Your task to perform on an android device: Search for Italian restaurants on Maps Image 0: 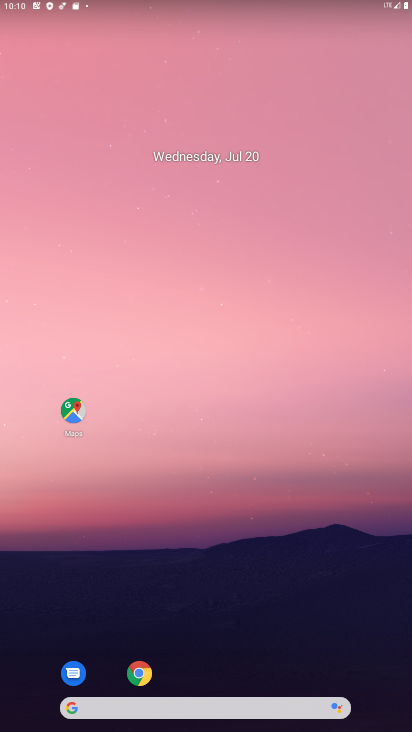
Step 0: click (74, 412)
Your task to perform on an android device: Search for Italian restaurants on Maps Image 1: 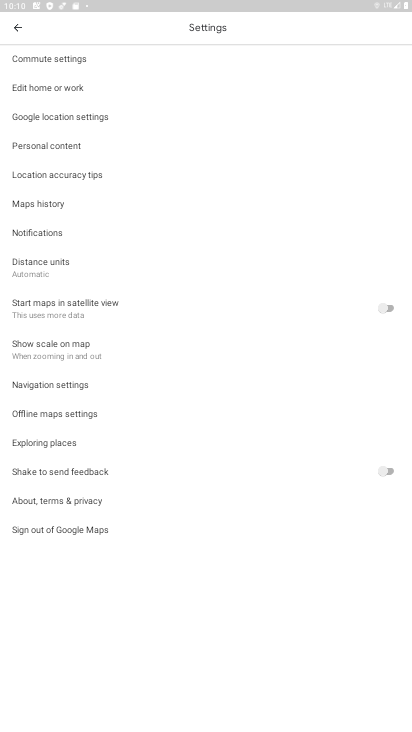
Step 1: press back button
Your task to perform on an android device: Search for Italian restaurants on Maps Image 2: 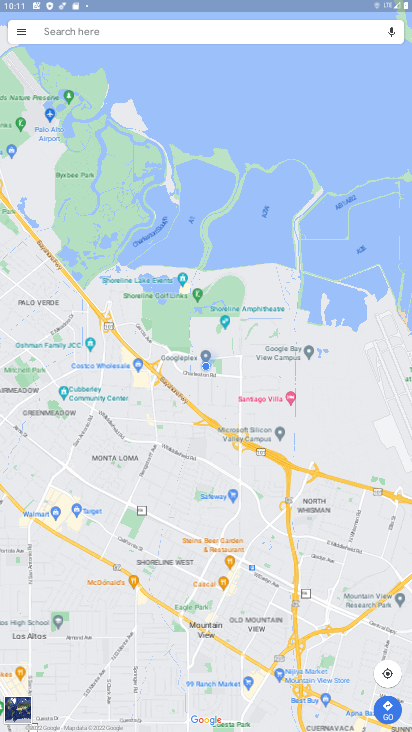
Step 2: click (278, 30)
Your task to perform on an android device: Search for Italian restaurants on Maps Image 3: 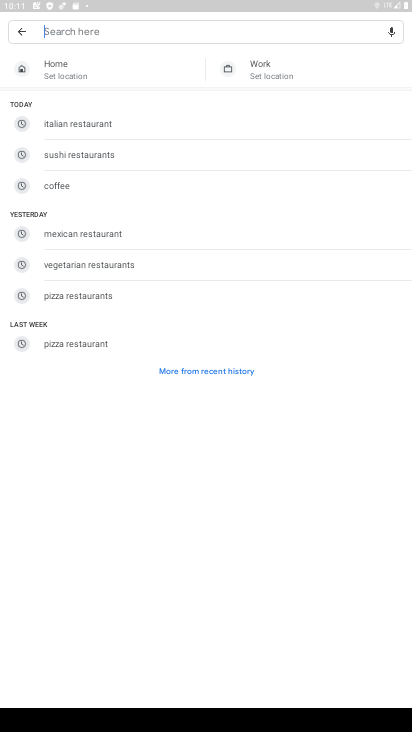
Step 3: type "Italian restaurants"
Your task to perform on an android device: Search for Italian restaurants on Maps Image 4: 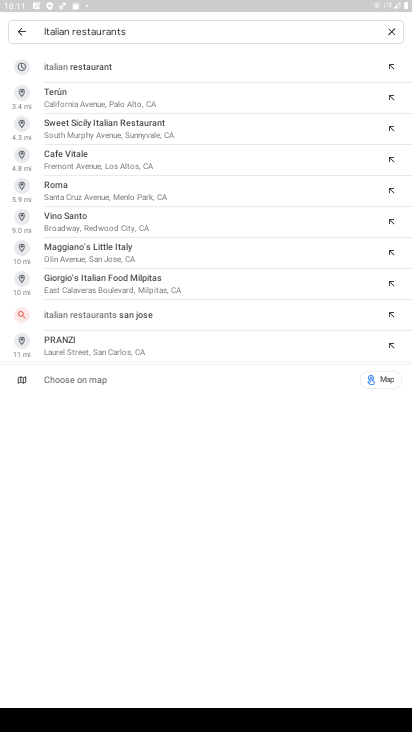
Step 4: click (106, 68)
Your task to perform on an android device: Search for Italian restaurants on Maps Image 5: 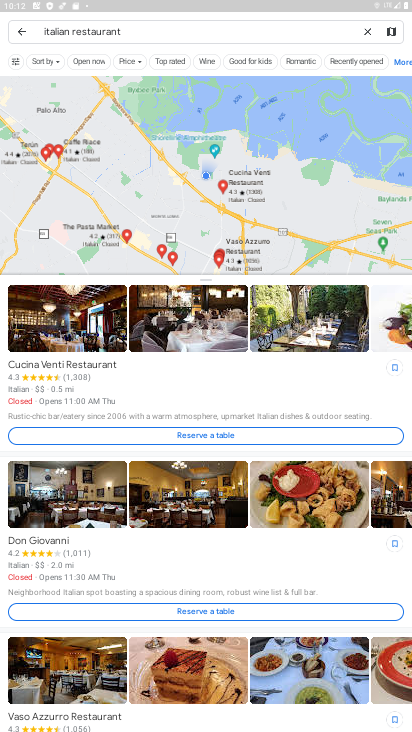
Step 5: task complete